Your task to perform on an android device: Turn on the flashlight Image 0: 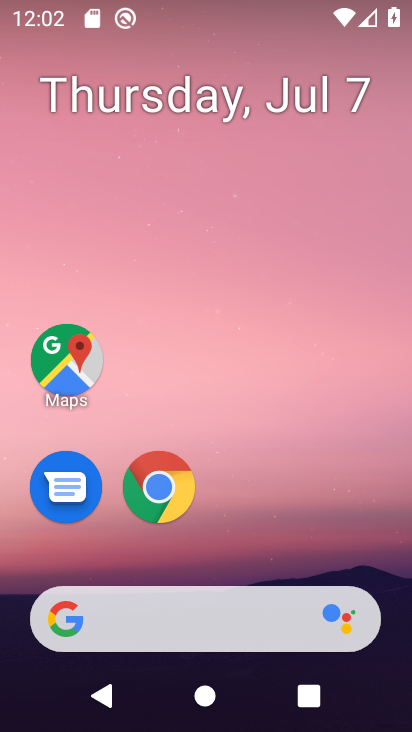
Step 0: drag from (266, 0) to (298, 423)
Your task to perform on an android device: Turn on the flashlight Image 1: 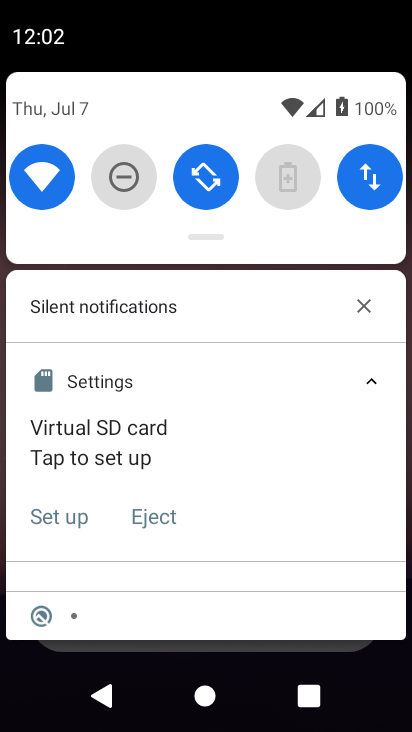
Step 1: drag from (235, 110) to (257, 360)
Your task to perform on an android device: Turn on the flashlight Image 2: 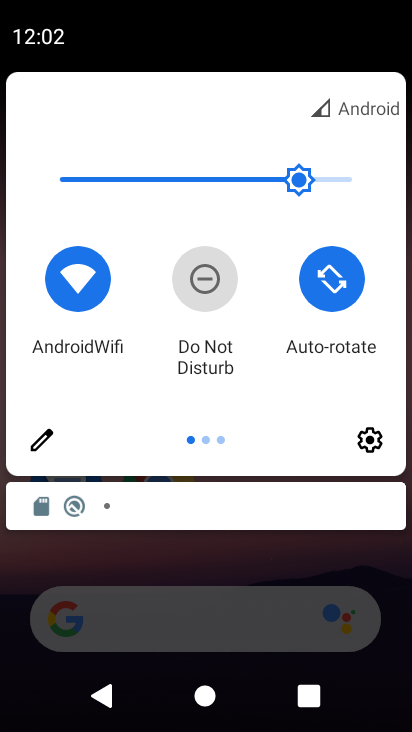
Step 2: click (55, 433)
Your task to perform on an android device: Turn on the flashlight Image 3: 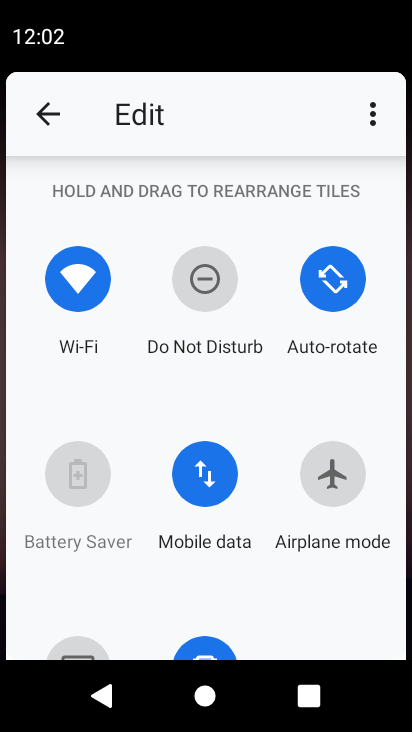
Step 3: task complete